Your task to perform on an android device: find snoozed emails in the gmail app Image 0: 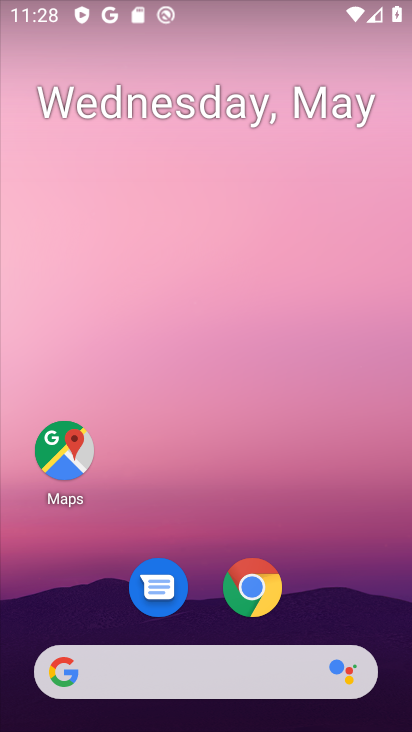
Step 0: drag from (379, 609) to (340, 109)
Your task to perform on an android device: find snoozed emails in the gmail app Image 1: 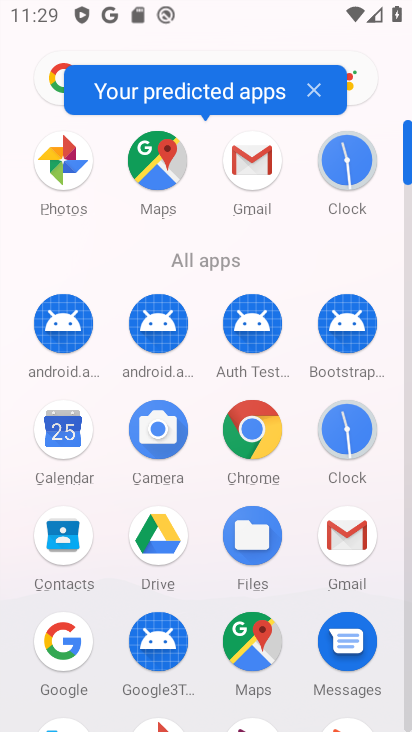
Step 1: click (263, 166)
Your task to perform on an android device: find snoozed emails in the gmail app Image 2: 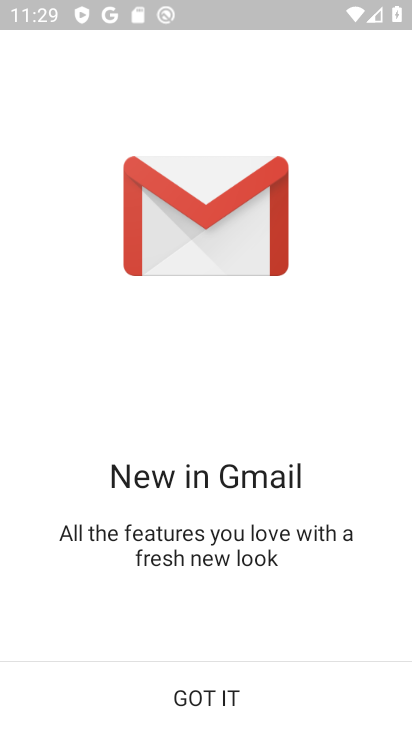
Step 2: click (235, 698)
Your task to perform on an android device: find snoozed emails in the gmail app Image 3: 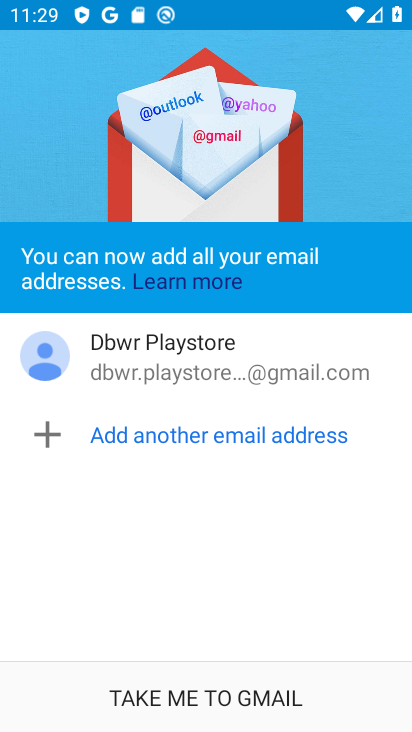
Step 3: click (259, 692)
Your task to perform on an android device: find snoozed emails in the gmail app Image 4: 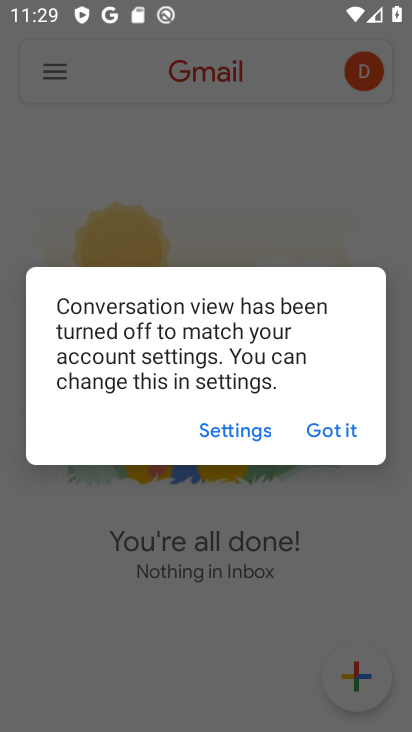
Step 4: click (350, 432)
Your task to perform on an android device: find snoozed emails in the gmail app Image 5: 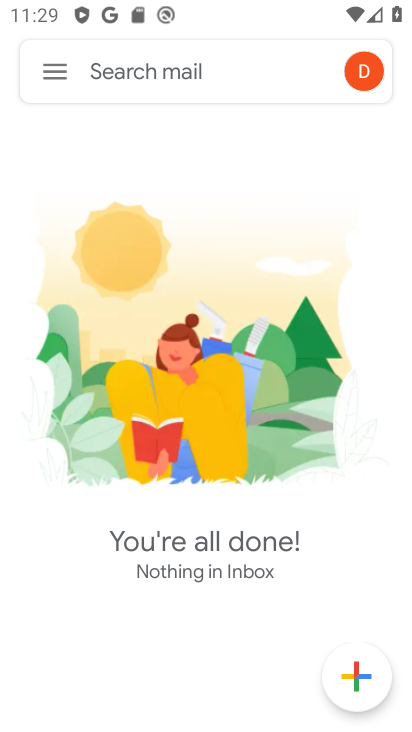
Step 5: click (49, 64)
Your task to perform on an android device: find snoozed emails in the gmail app Image 6: 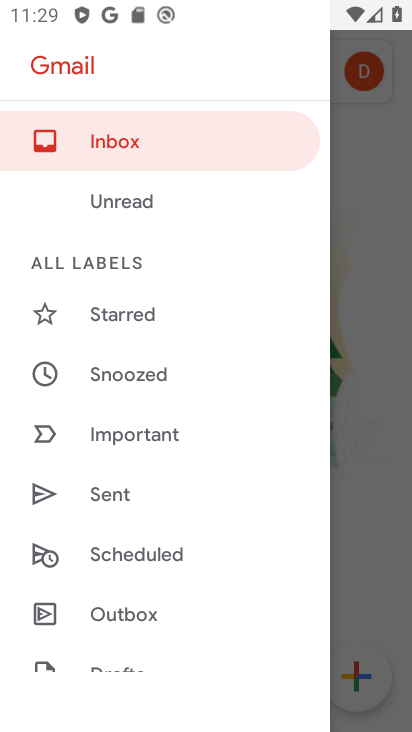
Step 6: drag from (158, 569) to (118, 356)
Your task to perform on an android device: find snoozed emails in the gmail app Image 7: 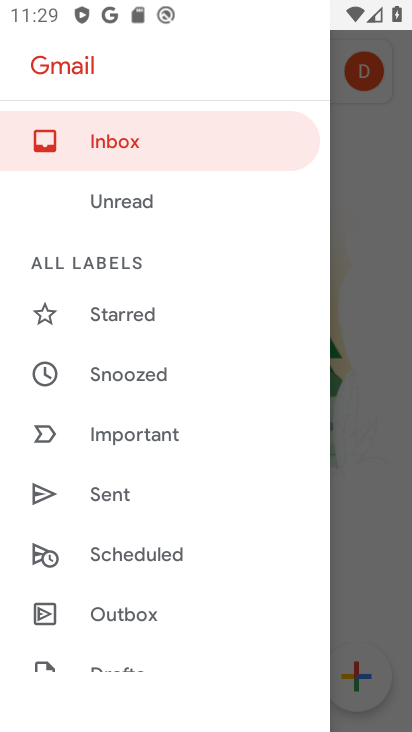
Step 7: drag from (136, 559) to (129, 301)
Your task to perform on an android device: find snoozed emails in the gmail app Image 8: 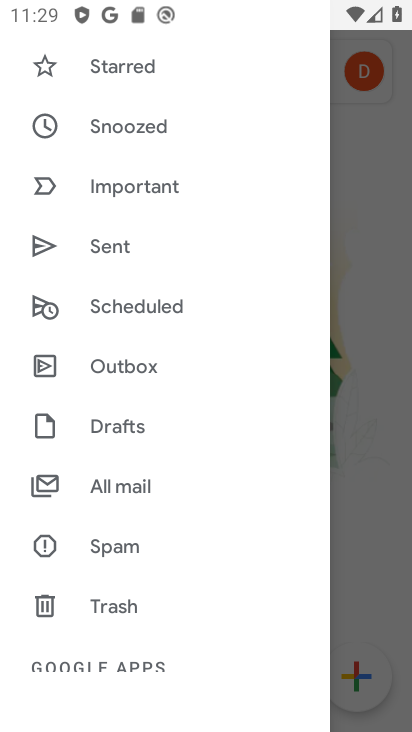
Step 8: drag from (142, 544) to (142, 169)
Your task to perform on an android device: find snoozed emails in the gmail app Image 9: 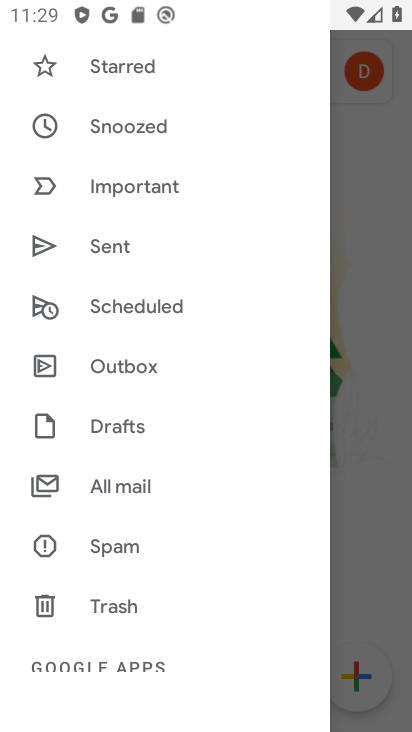
Step 9: drag from (149, 598) to (115, 601)
Your task to perform on an android device: find snoozed emails in the gmail app Image 10: 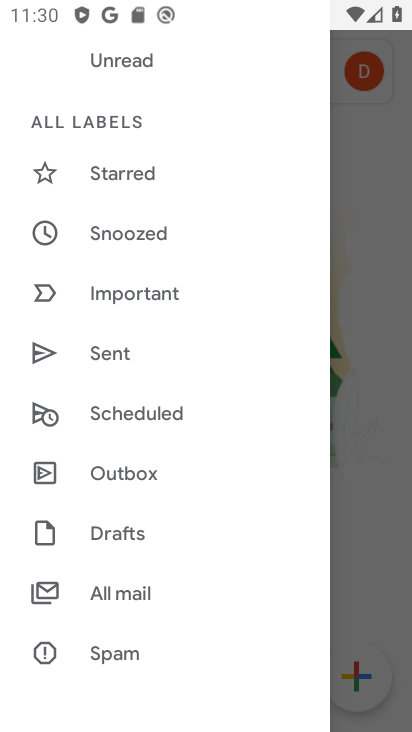
Step 10: click (153, 237)
Your task to perform on an android device: find snoozed emails in the gmail app Image 11: 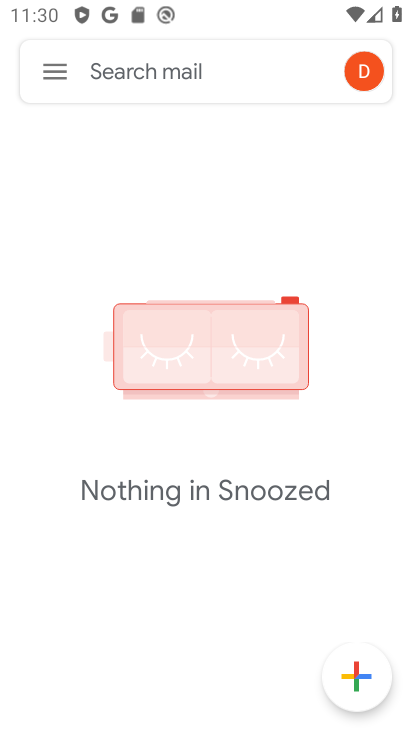
Step 11: task complete